Your task to perform on an android device: clear history in the chrome app Image 0: 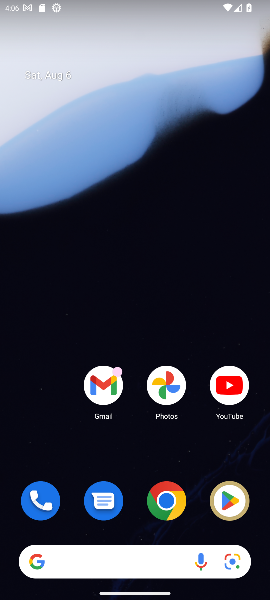
Step 0: click (159, 505)
Your task to perform on an android device: clear history in the chrome app Image 1: 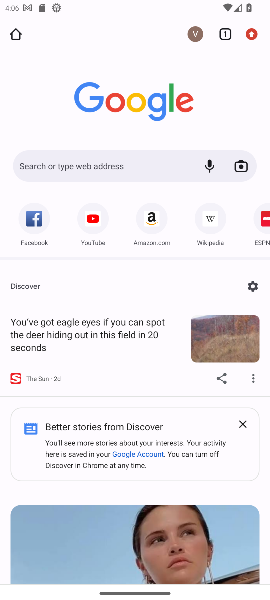
Step 1: click (255, 38)
Your task to perform on an android device: clear history in the chrome app Image 2: 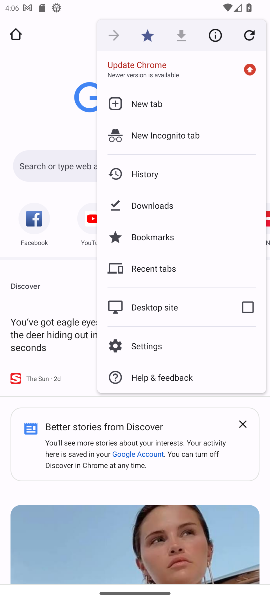
Step 2: click (157, 178)
Your task to perform on an android device: clear history in the chrome app Image 3: 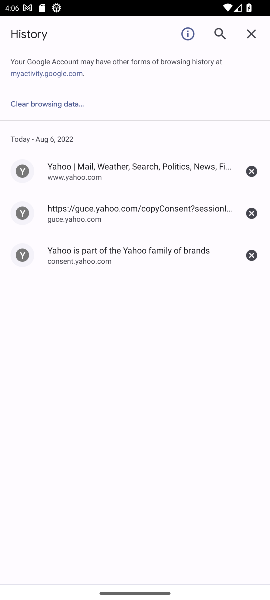
Step 3: click (17, 104)
Your task to perform on an android device: clear history in the chrome app Image 4: 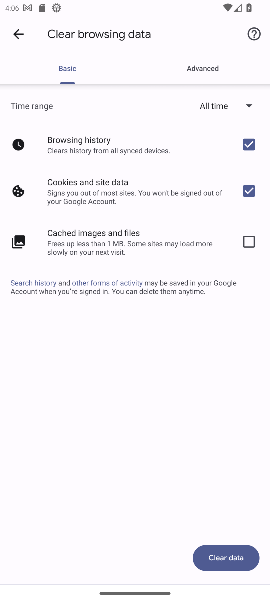
Step 4: click (230, 562)
Your task to perform on an android device: clear history in the chrome app Image 5: 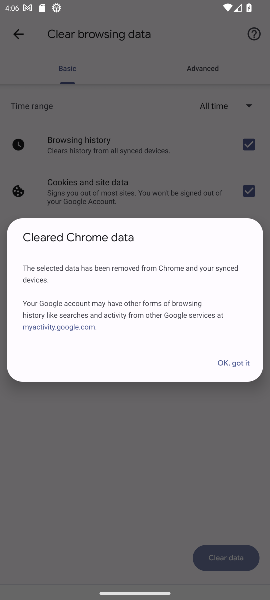
Step 5: click (222, 363)
Your task to perform on an android device: clear history in the chrome app Image 6: 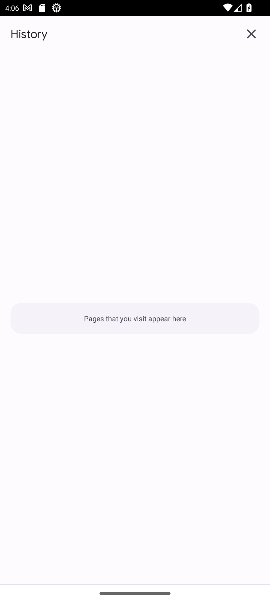
Step 6: task complete